Your task to perform on an android device: Toggle the flashlight Image 0: 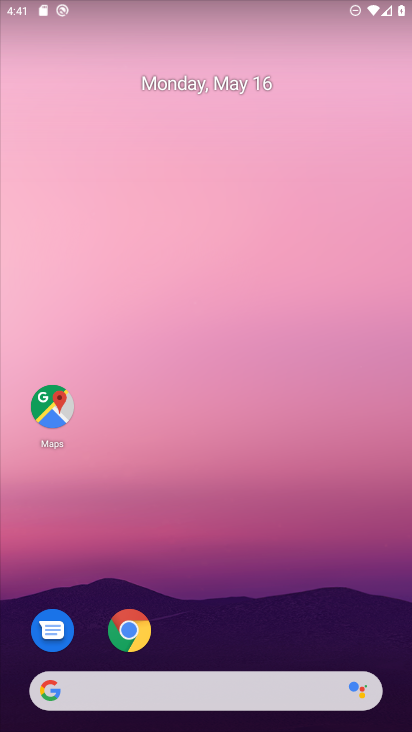
Step 0: press home button
Your task to perform on an android device: Toggle the flashlight Image 1: 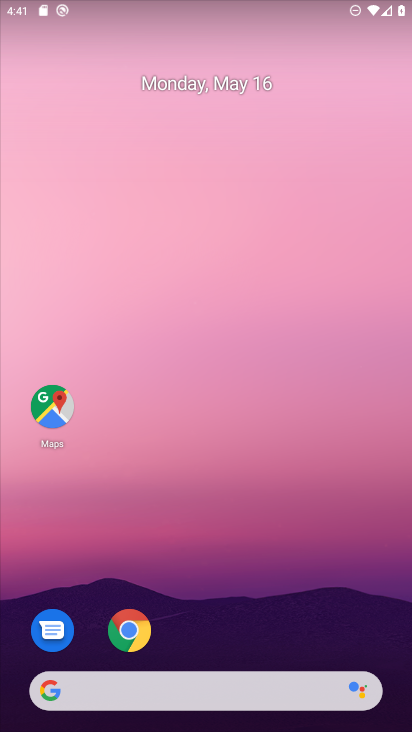
Step 1: task complete